Your task to perform on an android device: Open wifi settings Image 0: 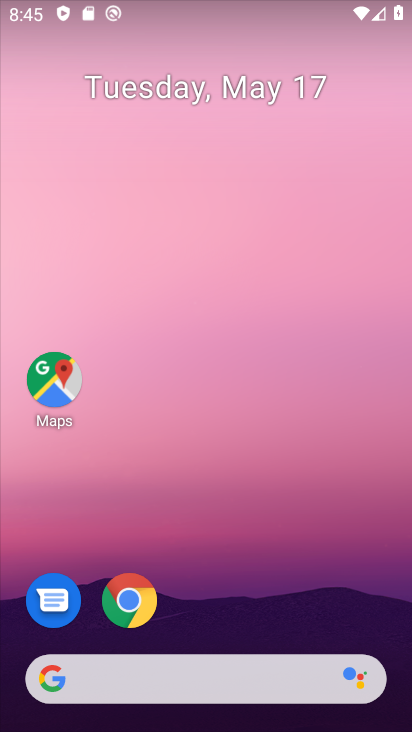
Step 0: drag from (275, 590) to (268, 167)
Your task to perform on an android device: Open wifi settings Image 1: 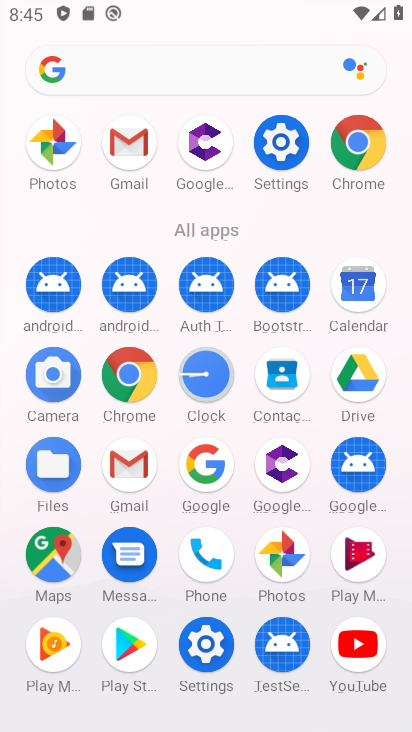
Step 1: click (279, 146)
Your task to perform on an android device: Open wifi settings Image 2: 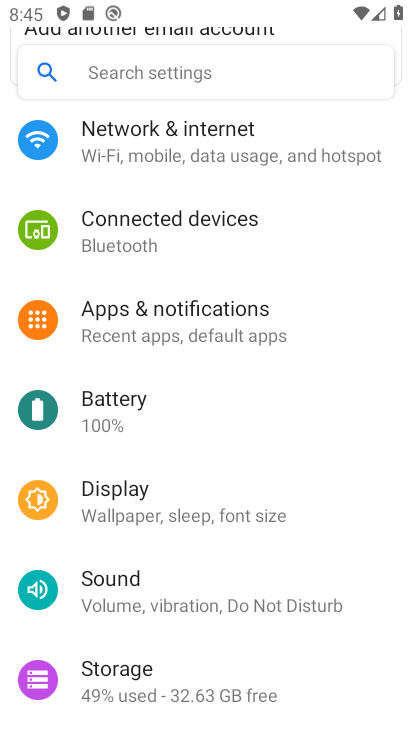
Step 2: click (197, 159)
Your task to perform on an android device: Open wifi settings Image 3: 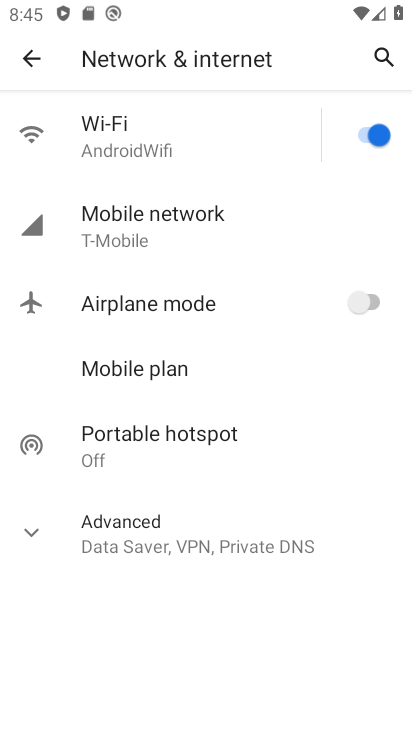
Step 3: click (141, 132)
Your task to perform on an android device: Open wifi settings Image 4: 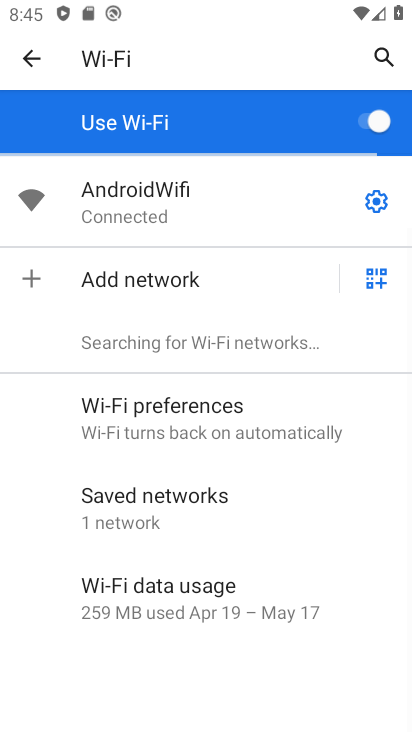
Step 4: task complete